Your task to perform on an android device: Show the shopping cart on bestbuy.com. Image 0: 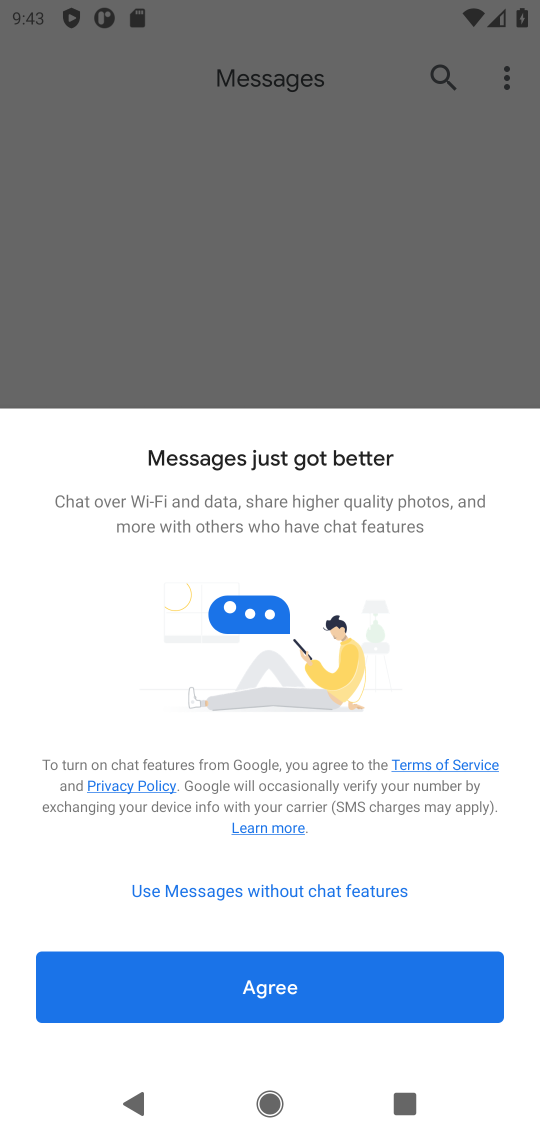
Step 0: press home button
Your task to perform on an android device: Show the shopping cart on bestbuy.com. Image 1: 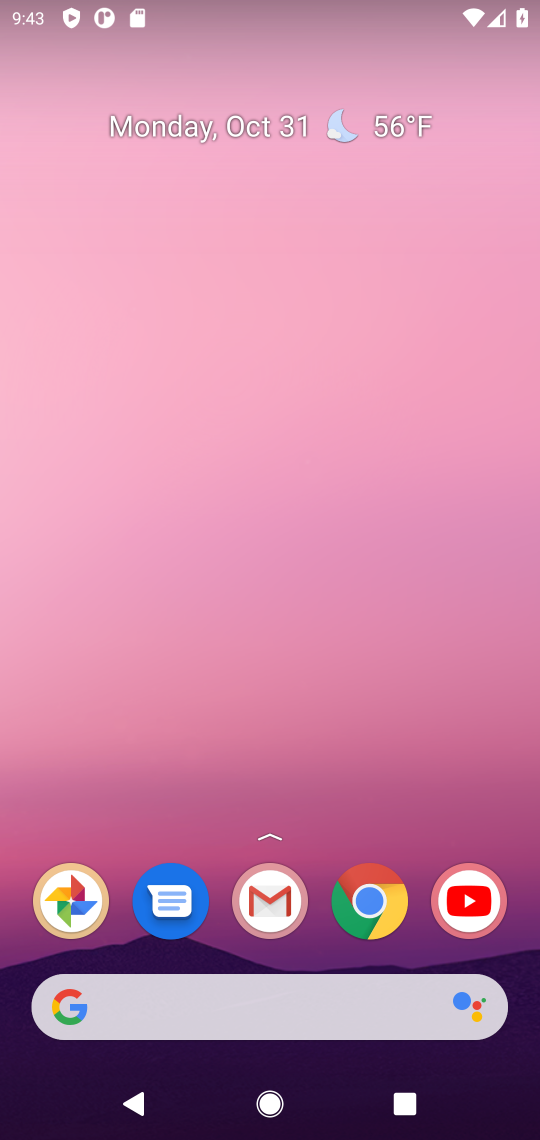
Step 1: drag from (223, 991) to (213, 361)
Your task to perform on an android device: Show the shopping cart on bestbuy.com. Image 2: 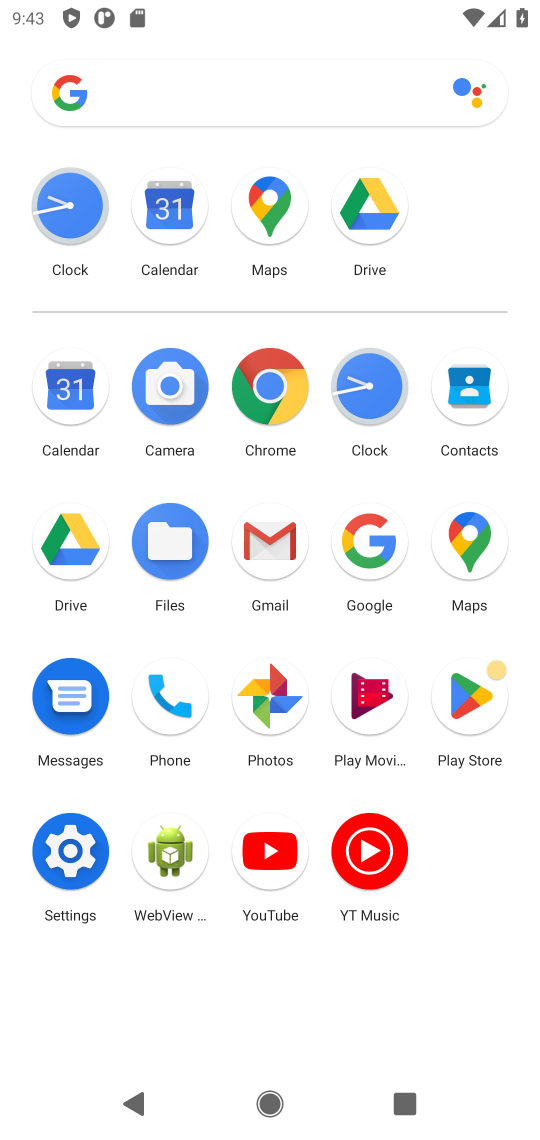
Step 2: click (370, 534)
Your task to perform on an android device: Show the shopping cart on bestbuy.com. Image 3: 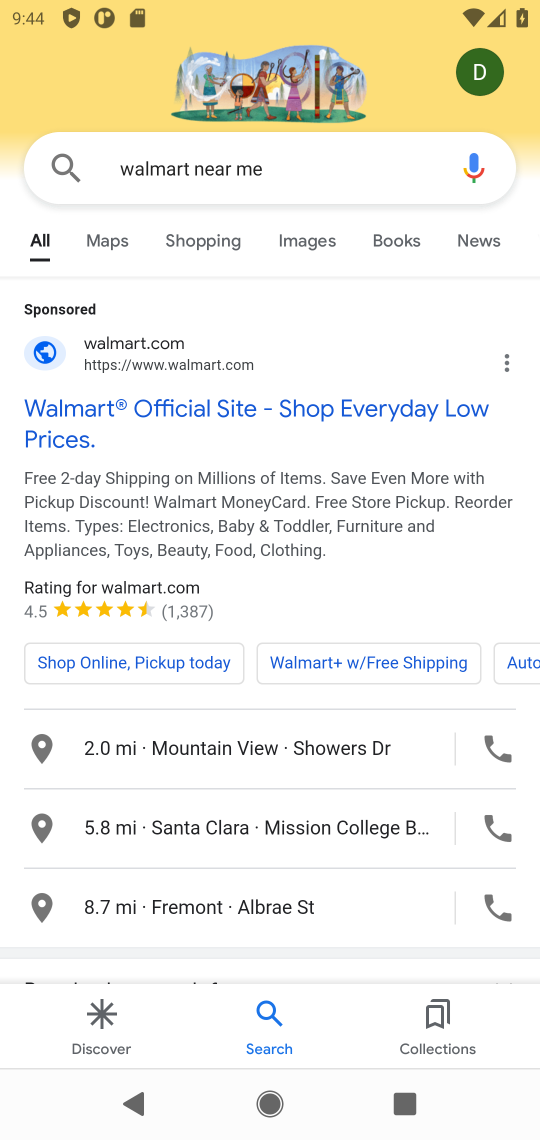
Step 3: click (282, 171)
Your task to perform on an android device: Show the shopping cart on bestbuy.com. Image 4: 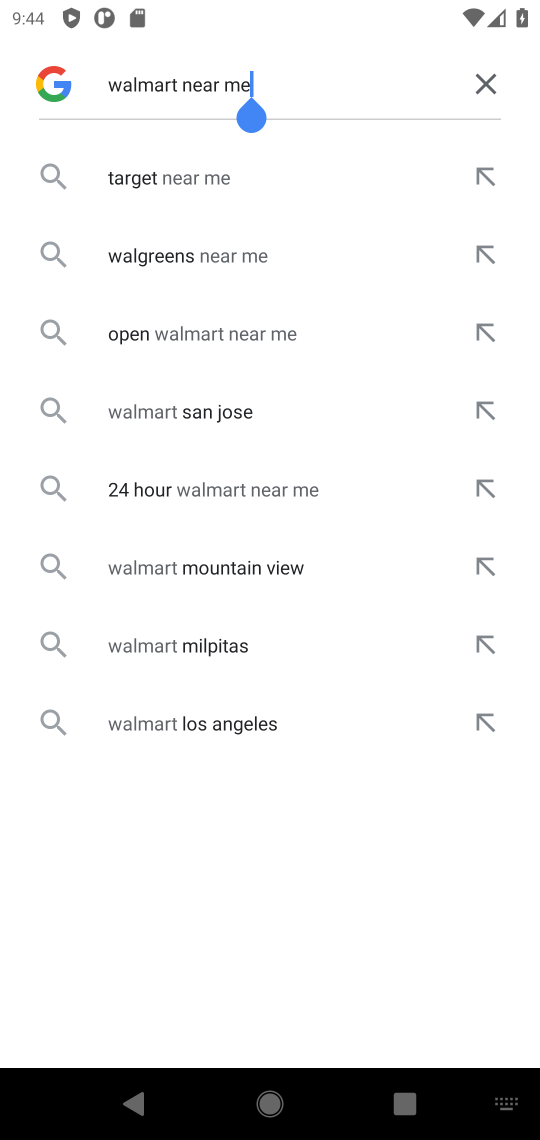
Step 4: click (488, 90)
Your task to perform on an android device: Show the shopping cart on bestbuy.com. Image 5: 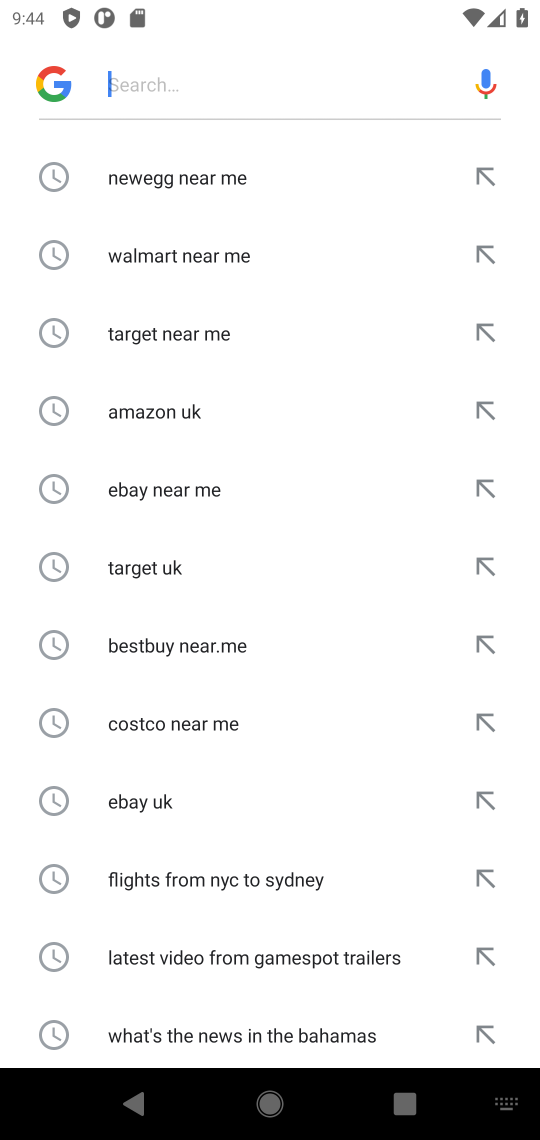
Step 5: click (283, 74)
Your task to perform on an android device: Show the shopping cart on bestbuy.com. Image 6: 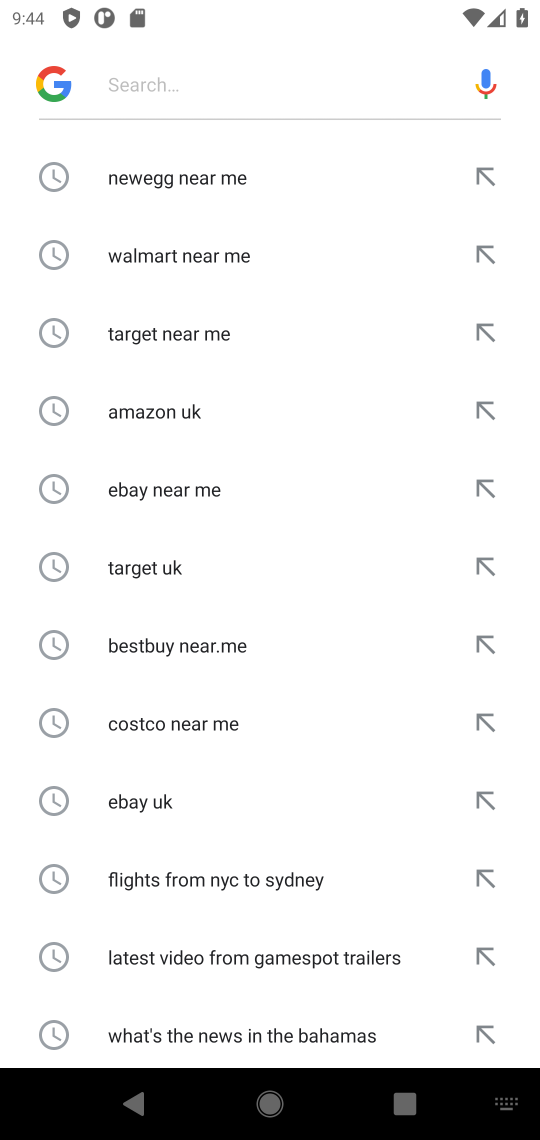
Step 6: type "bestbuy "
Your task to perform on an android device: Show the shopping cart on bestbuy.com. Image 7: 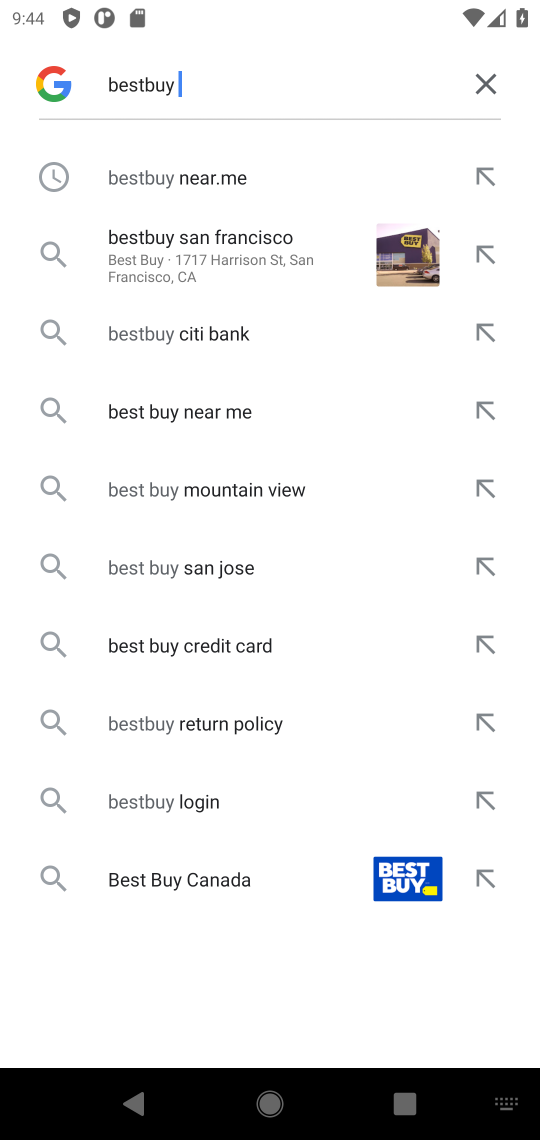
Step 7: click (165, 183)
Your task to perform on an android device: Show the shopping cart on bestbuy.com. Image 8: 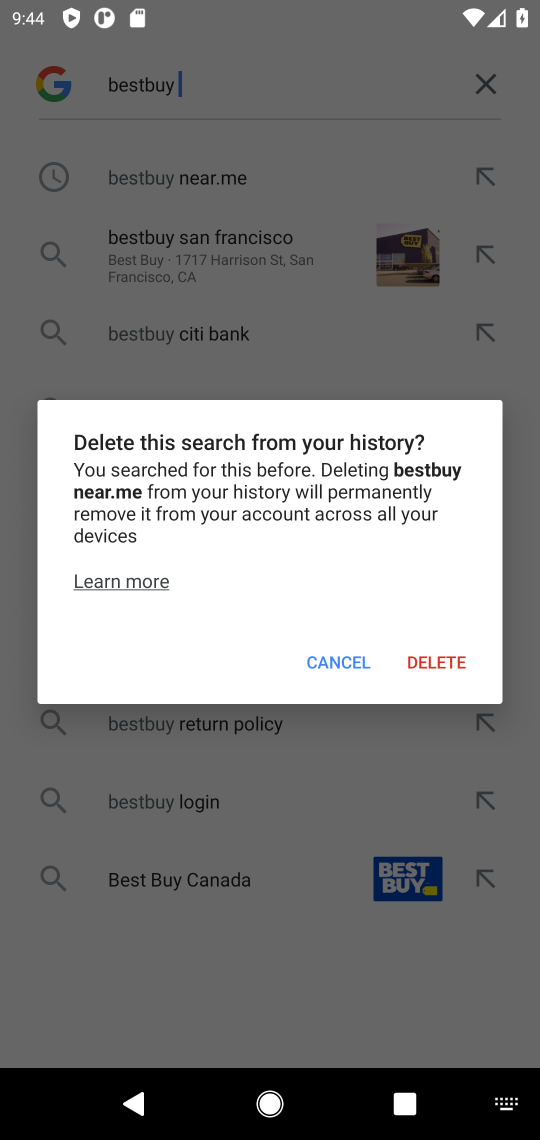
Step 8: click (358, 654)
Your task to perform on an android device: Show the shopping cart on bestbuy.com. Image 9: 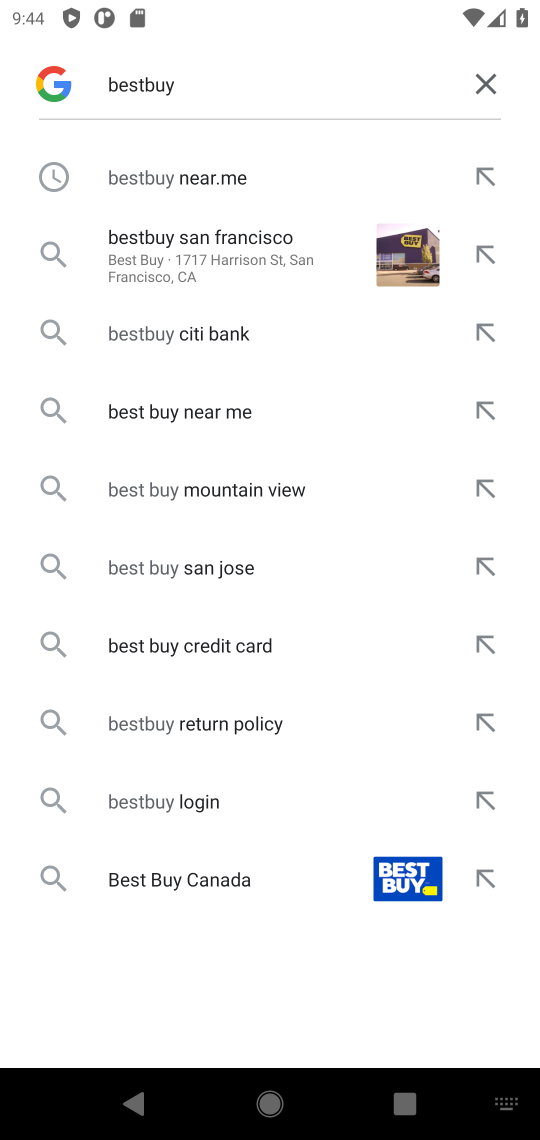
Step 9: click (198, 424)
Your task to perform on an android device: Show the shopping cart on bestbuy.com. Image 10: 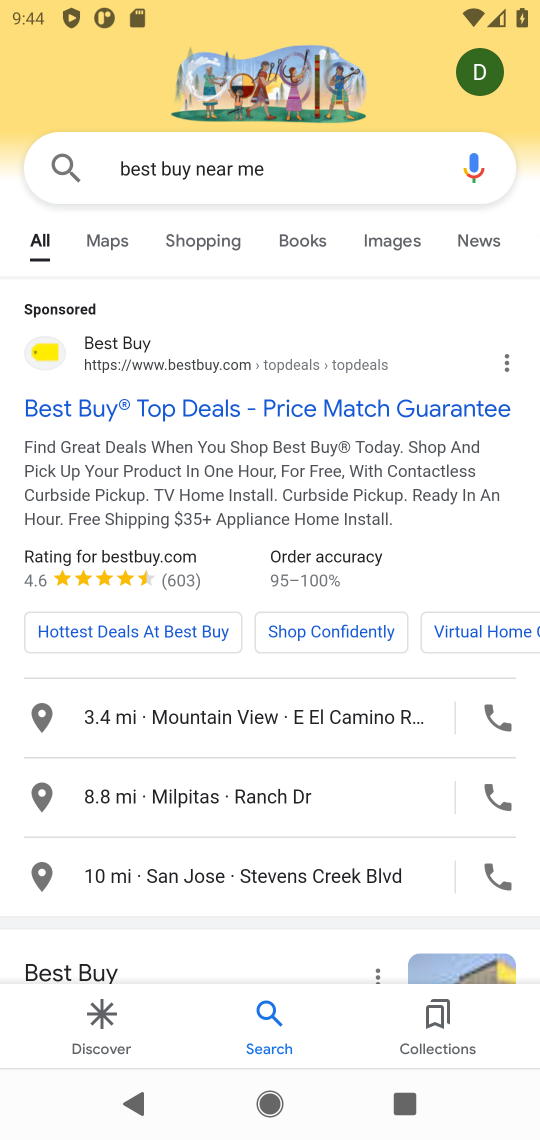
Step 10: click (37, 342)
Your task to perform on an android device: Show the shopping cart on bestbuy.com. Image 11: 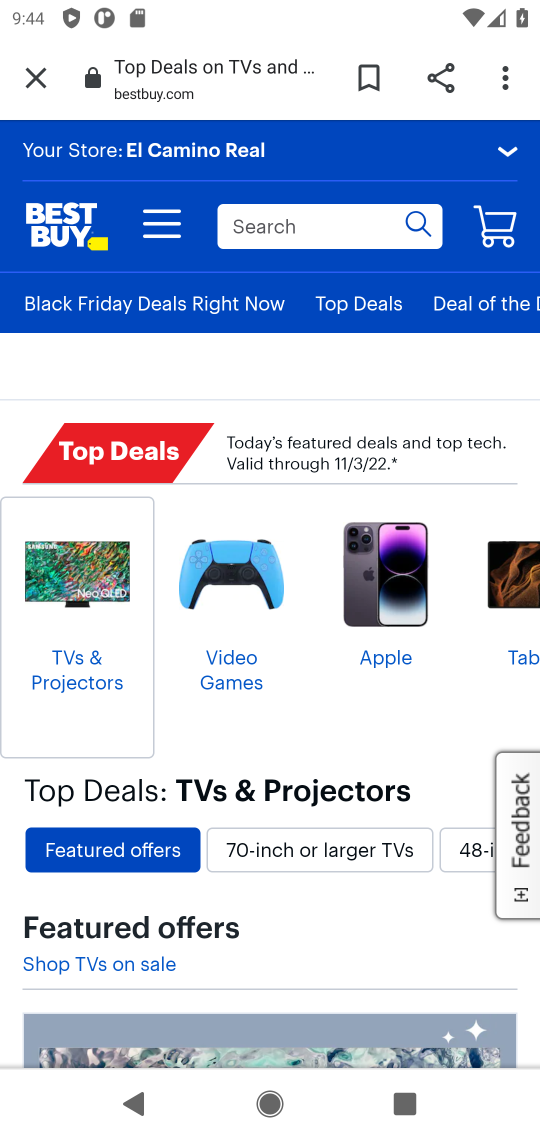
Step 11: click (486, 213)
Your task to perform on an android device: Show the shopping cart on bestbuy.com. Image 12: 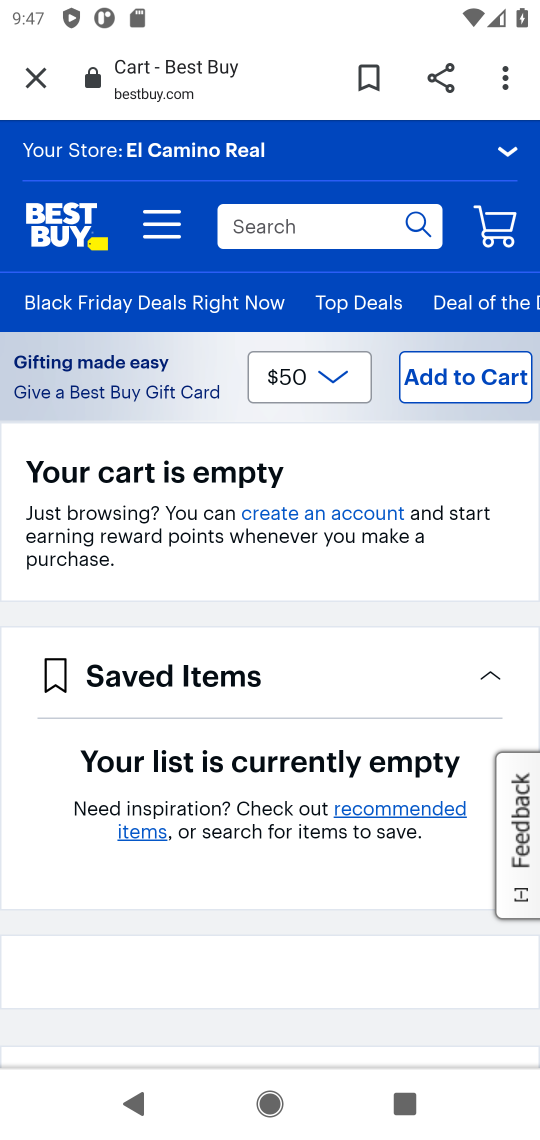
Step 12: task complete